Your task to perform on an android device: Open notification settings Image 0: 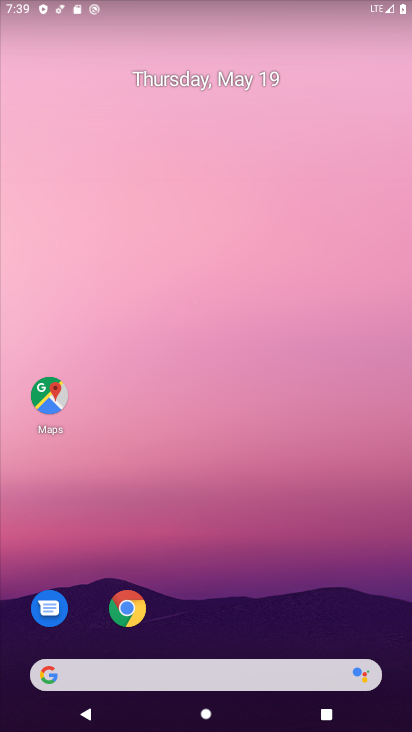
Step 0: press home button
Your task to perform on an android device: Open notification settings Image 1: 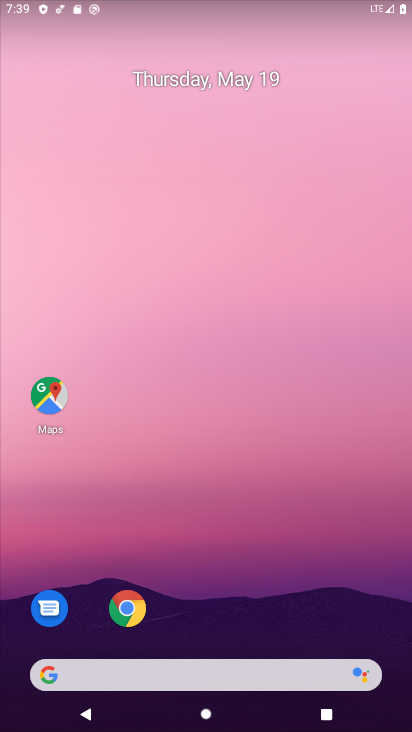
Step 1: drag from (392, 658) to (346, 169)
Your task to perform on an android device: Open notification settings Image 2: 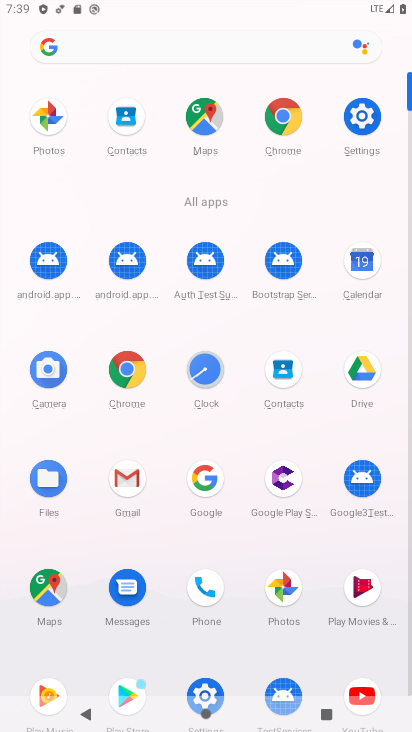
Step 2: click (360, 116)
Your task to perform on an android device: Open notification settings Image 3: 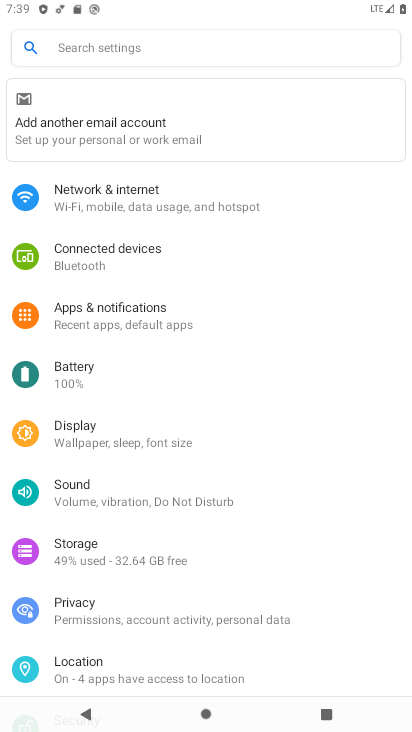
Step 3: click (93, 321)
Your task to perform on an android device: Open notification settings Image 4: 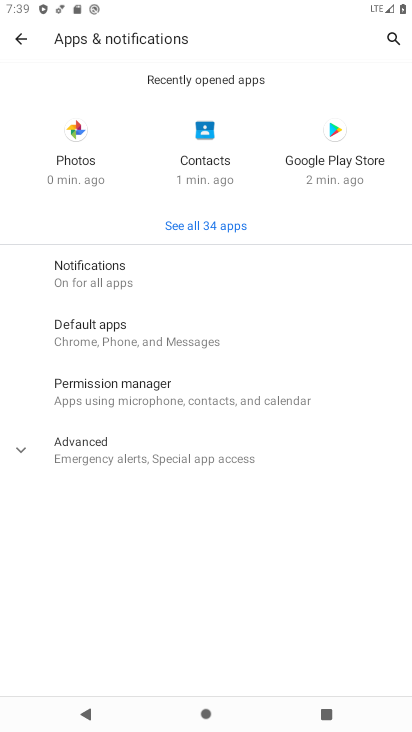
Step 4: click (91, 282)
Your task to perform on an android device: Open notification settings Image 5: 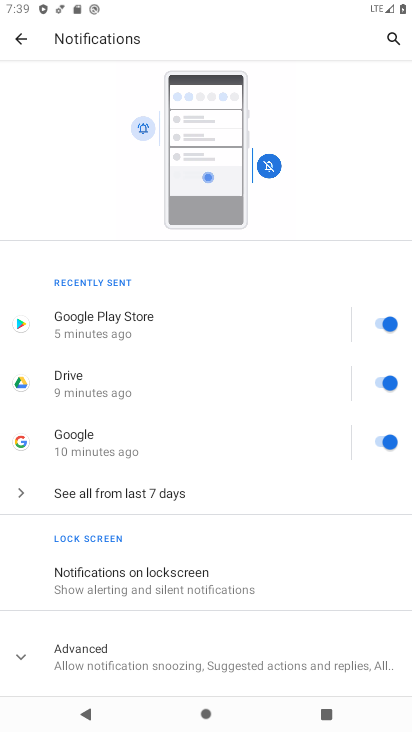
Step 5: drag from (274, 628) to (259, 348)
Your task to perform on an android device: Open notification settings Image 6: 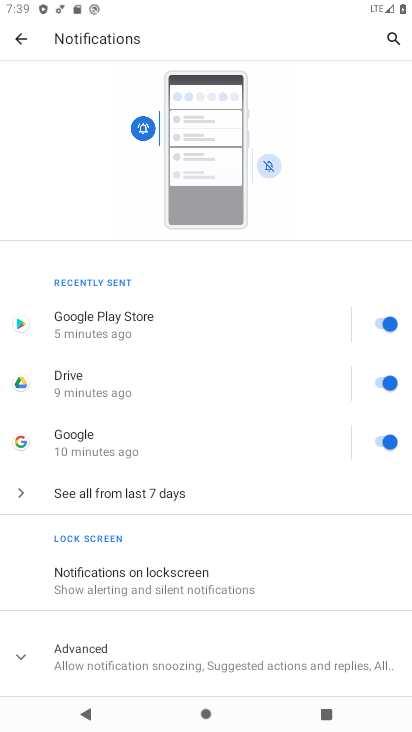
Step 6: drag from (275, 601) to (274, 336)
Your task to perform on an android device: Open notification settings Image 7: 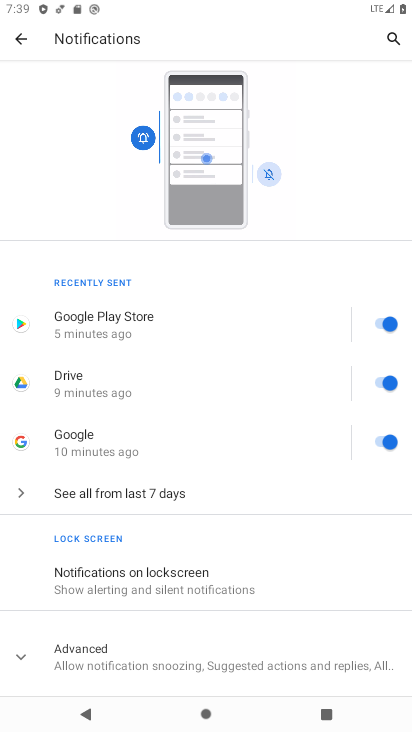
Step 7: click (19, 657)
Your task to perform on an android device: Open notification settings Image 8: 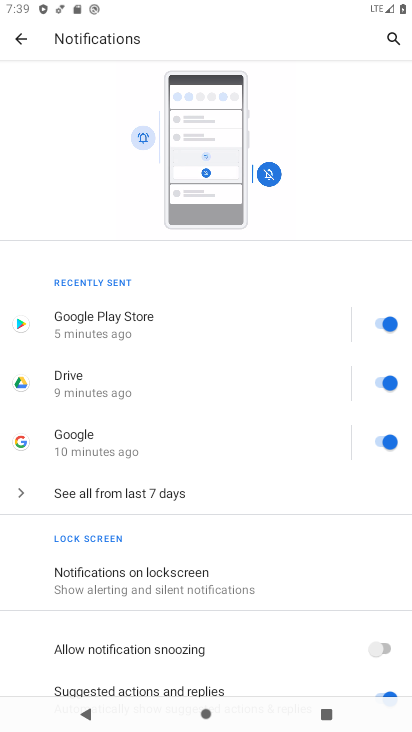
Step 8: task complete